Your task to perform on an android device: When is my next meeting? Image 0: 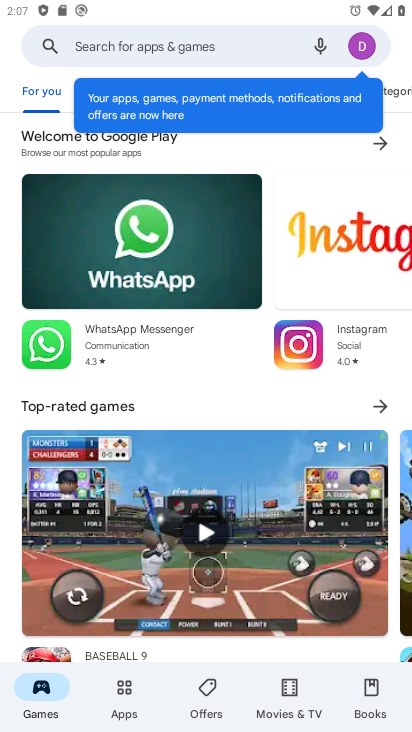
Step 0: press home button
Your task to perform on an android device: When is my next meeting? Image 1: 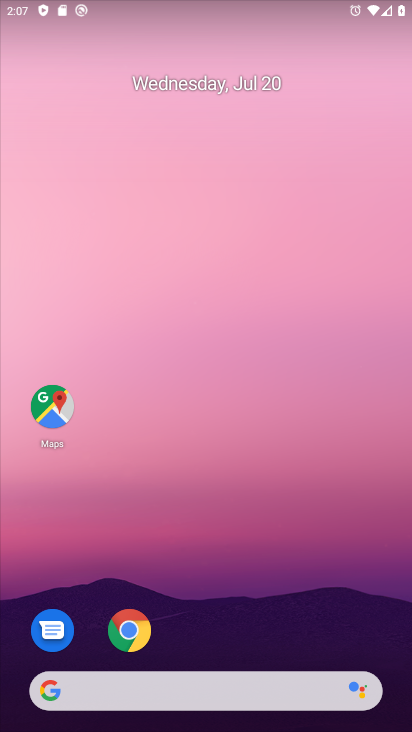
Step 1: drag from (70, 559) to (258, 191)
Your task to perform on an android device: When is my next meeting? Image 2: 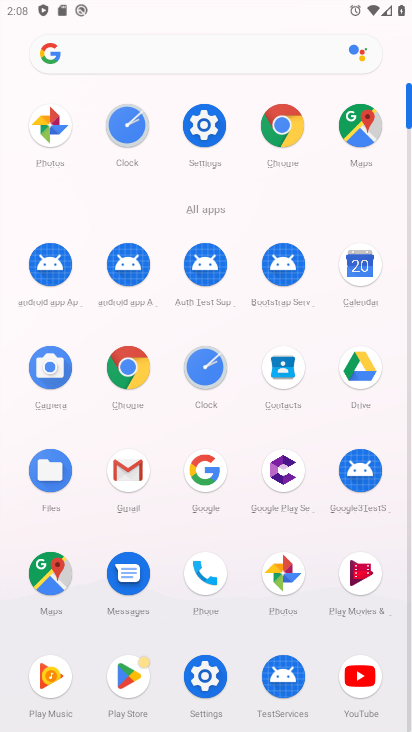
Step 2: click (350, 268)
Your task to perform on an android device: When is my next meeting? Image 3: 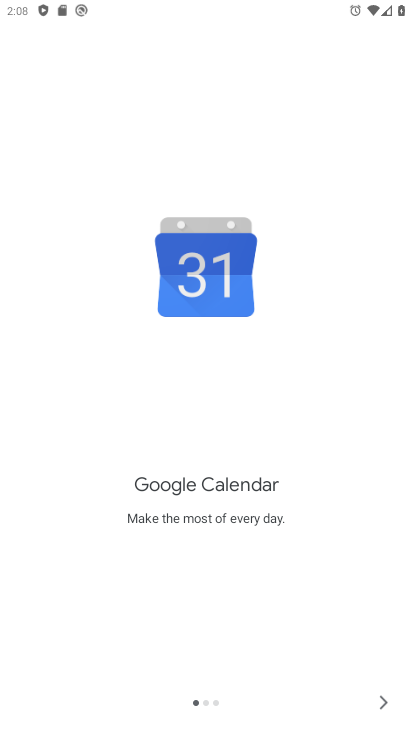
Step 3: click (375, 697)
Your task to perform on an android device: When is my next meeting? Image 4: 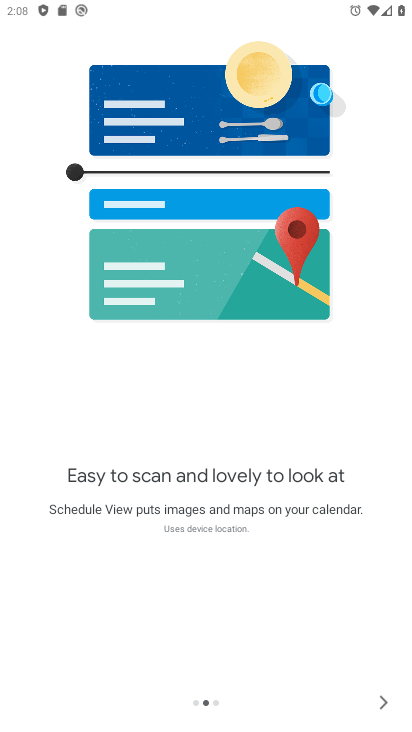
Step 4: click (378, 698)
Your task to perform on an android device: When is my next meeting? Image 5: 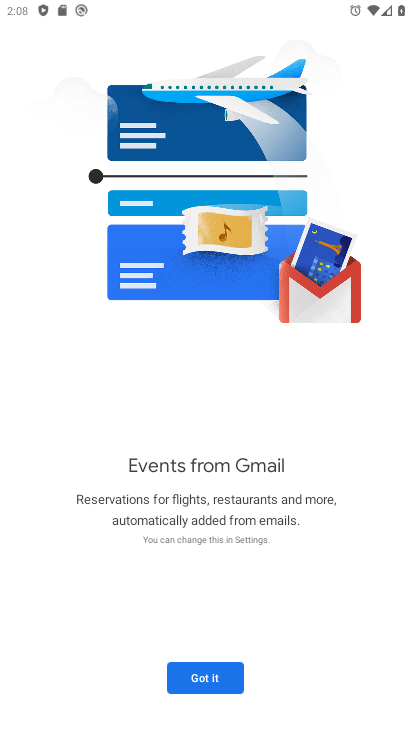
Step 5: click (183, 671)
Your task to perform on an android device: When is my next meeting? Image 6: 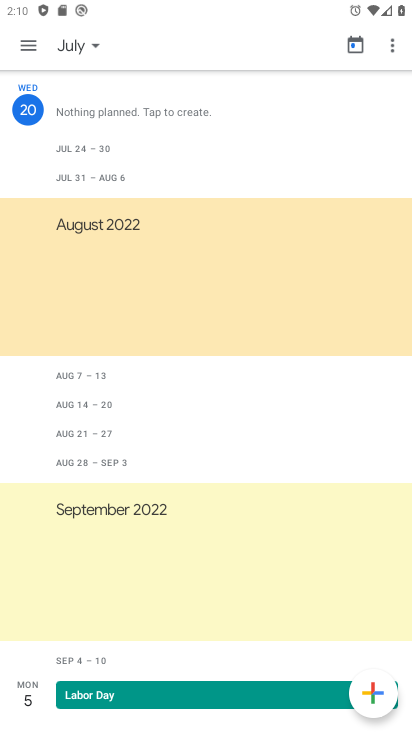
Step 6: task complete